Your task to perform on an android device: turn on data saver in the chrome app Image 0: 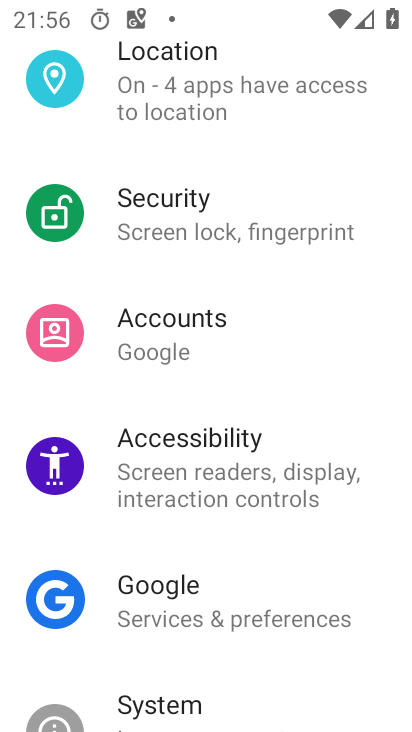
Step 0: press home button
Your task to perform on an android device: turn on data saver in the chrome app Image 1: 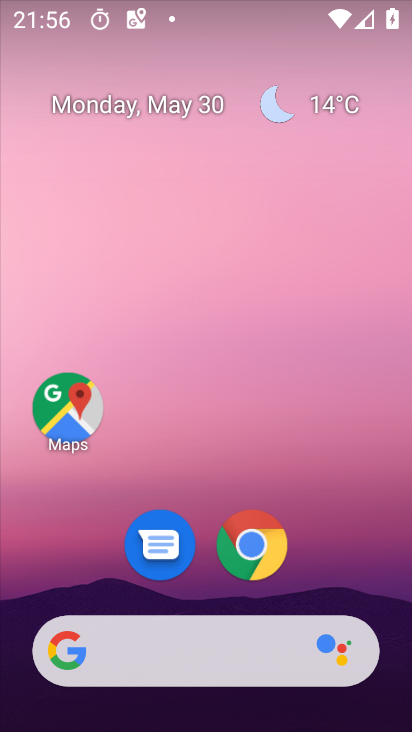
Step 1: click (252, 547)
Your task to perform on an android device: turn on data saver in the chrome app Image 2: 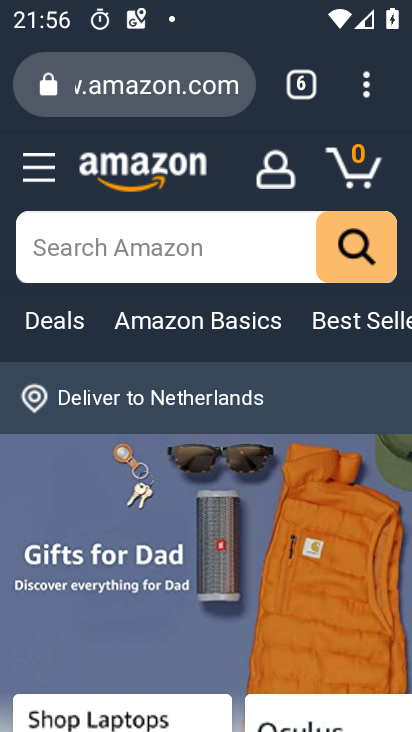
Step 2: click (371, 85)
Your task to perform on an android device: turn on data saver in the chrome app Image 3: 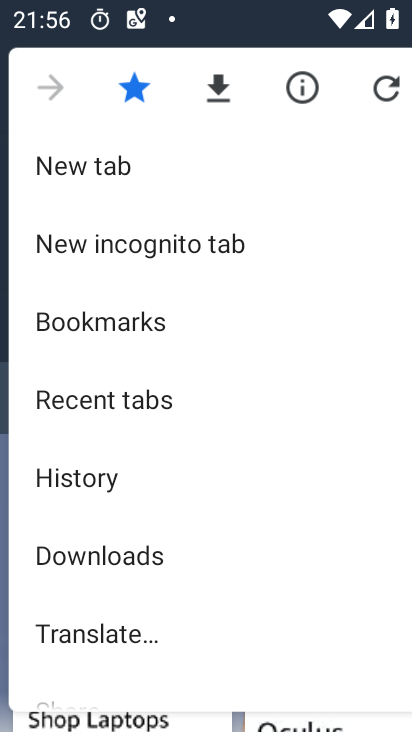
Step 3: drag from (176, 600) to (189, 242)
Your task to perform on an android device: turn on data saver in the chrome app Image 4: 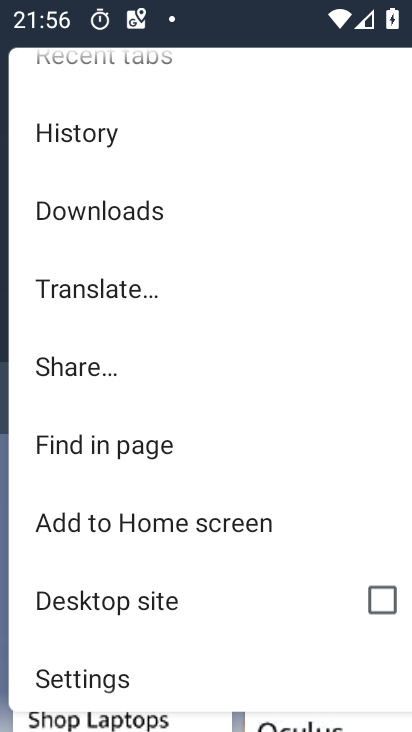
Step 4: click (111, 667)
Your task to perform on an android device: turn on data saver in the chrome app Image 5: 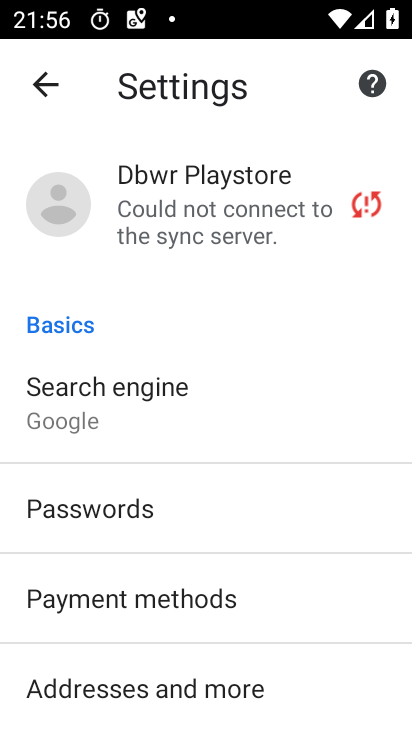
Step 5: drag from (318, 639) to (306, 312)
Your task to perform on an android device: turn on data saver in the chrome app Image 6: 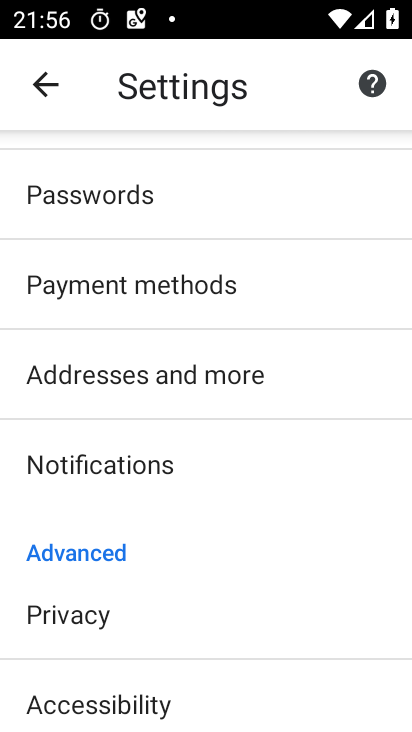
Step 6: drag from (244, 648) to (237, 258)
Your task to perform on an android device: turn on data saver in the chrome app Image 7: 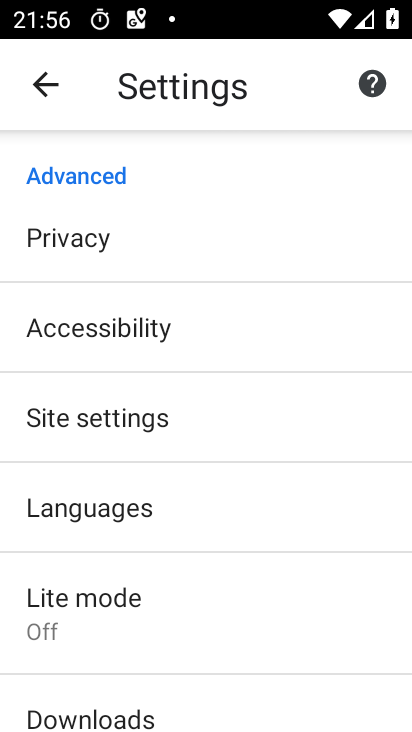
Step 7: click (116, 609)
Your task to perform on an android device: turn on data saver in the chrome app Image 8: 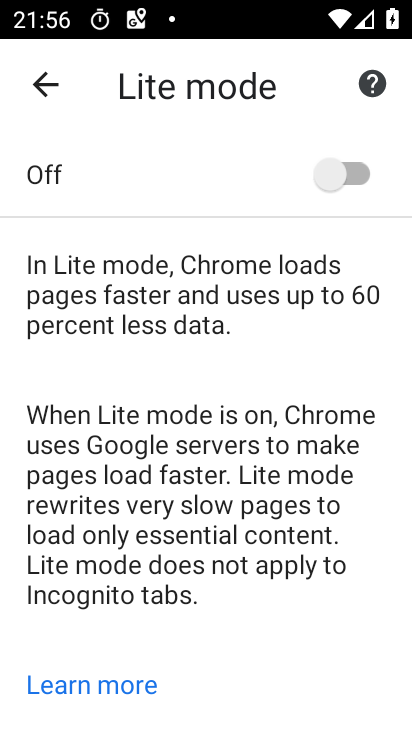
Step 8: click (354, 175)
Your task to perform on an android device: turn on data saver in the chrome app Image 9: 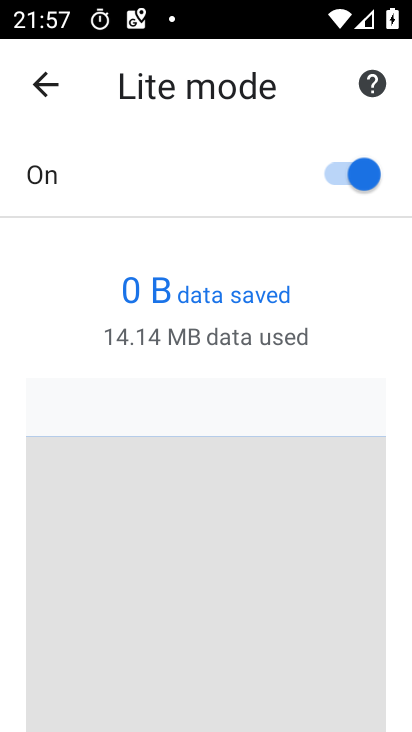
Step 9: task complete